Your task to perform on an android device: Show me popular videos on Youtube Image 0: 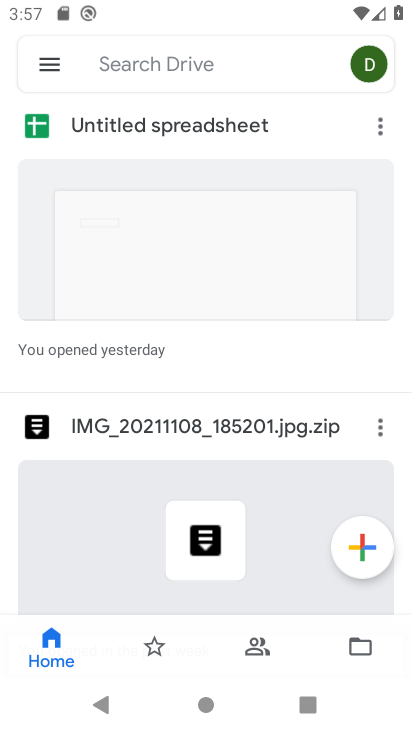
Step 0: press home button
Your task to perform on an android device: Show me popular videos on Youtube Image 1: 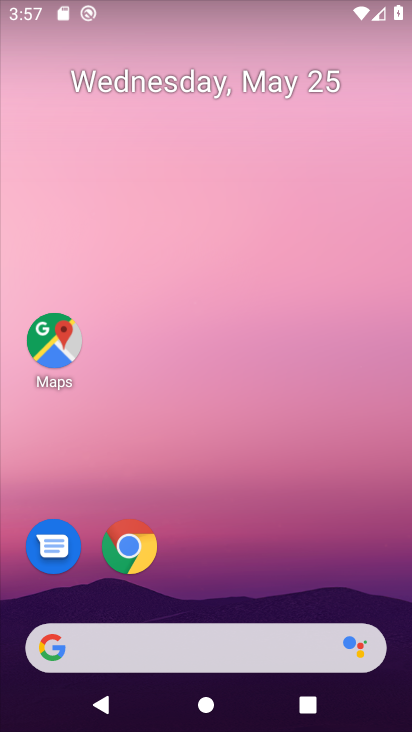
Step 1: drag from (287, 576) to (245, 125)
Your task to perform on an android device: Show me popular videos on Youtube Image 2: 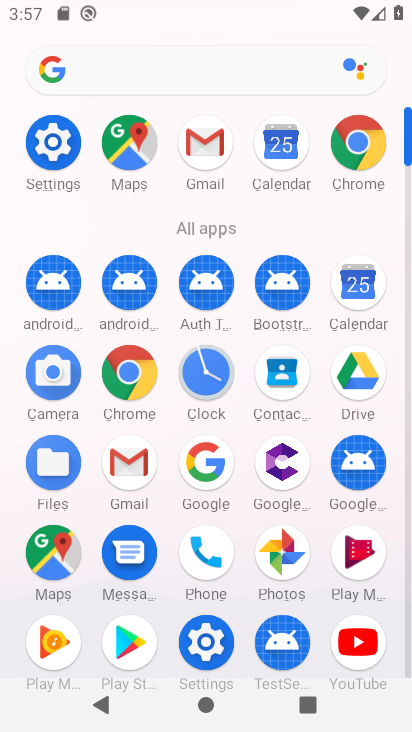
Step 2: click (365, 641)
Your task to perform on an android device: Show me popular videos on Youtube Image 3: 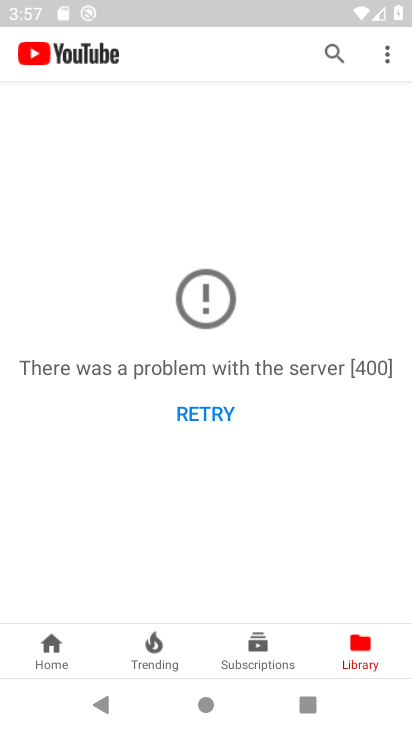
Step 3: task complete